Your task to perform on an android device: search for starred emails in the gmail app Image 0: 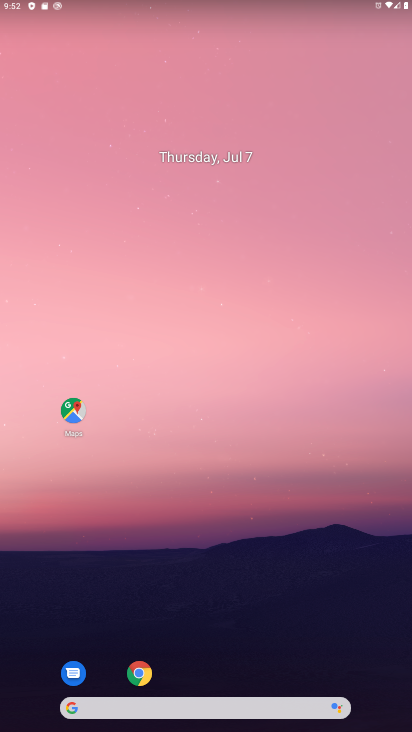
Step 0: drag from (229, 620) to (242, 22)
Your task to perform on an android device: search for starred emails in the gmail app Image 1: 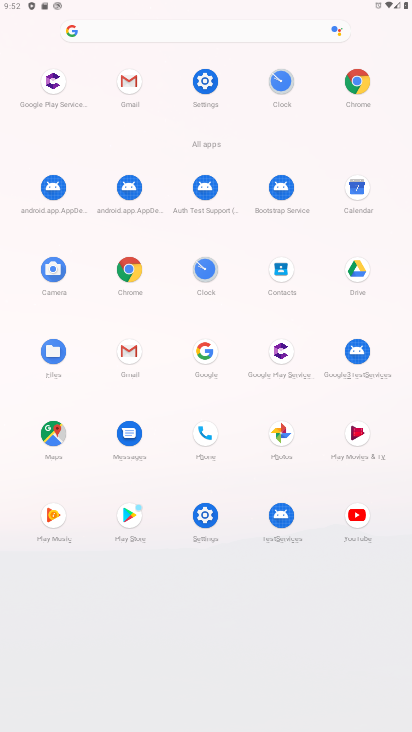
Step 1: click (134, 368)
Your task to perform on an android device: search for starred emails in the gmail app Image 2: 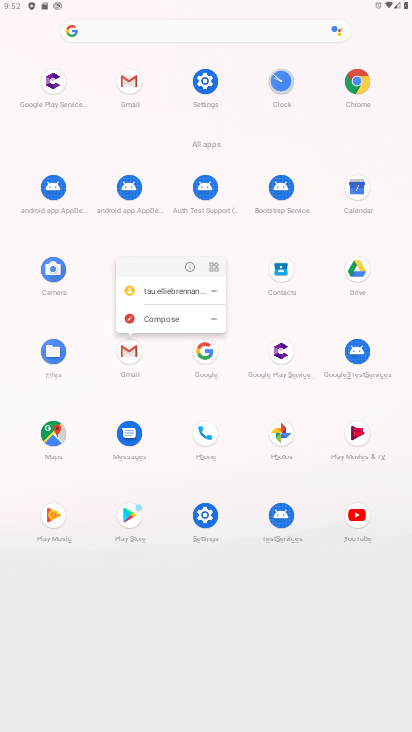
Step 2: click (132, 366)
Your task to perform on an android device: search for starred emails in the gmail app Image 3: 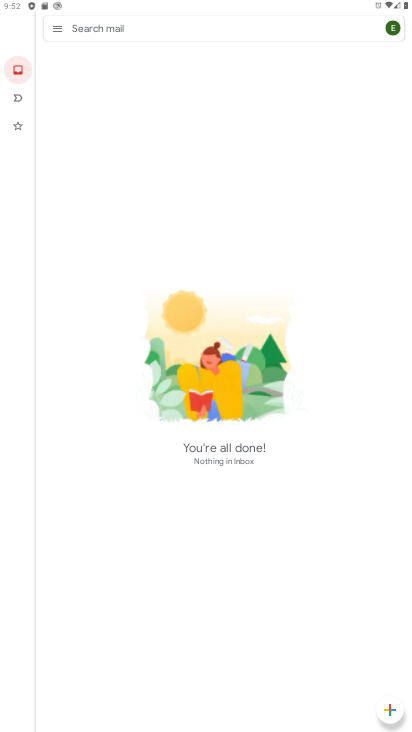
Step 3: click (54, 24)
Your task to perform on an android device: search for starred emails in the gmail app Image 4: 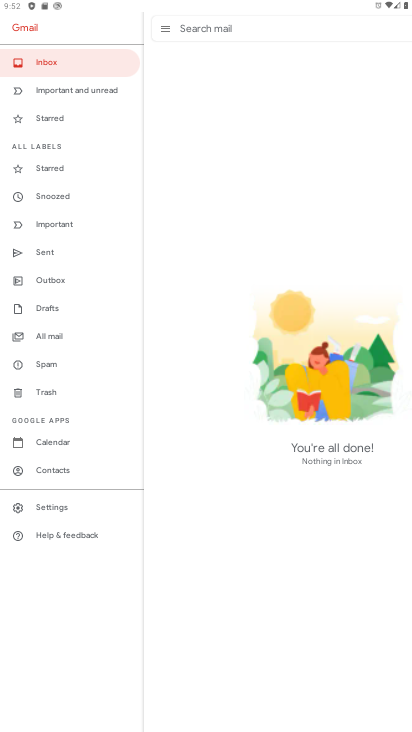
Step 4: click (61, 169)
Your task to perform on an android device: search for starred emails in the gmail app Image 5: 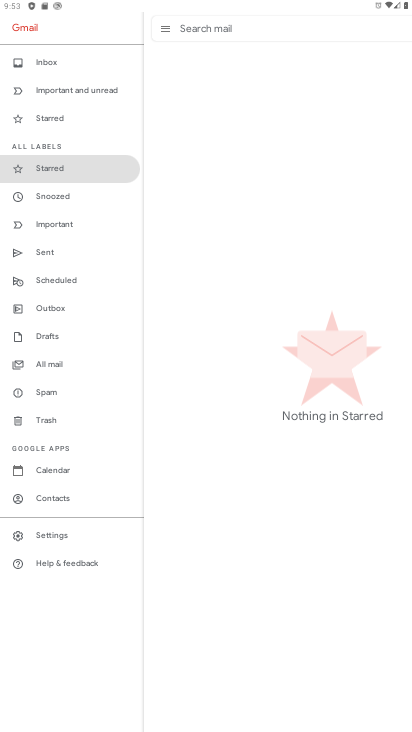
Step 5: task complete